Your task to perform on an android device: turn on bluetooth scan Image 0: 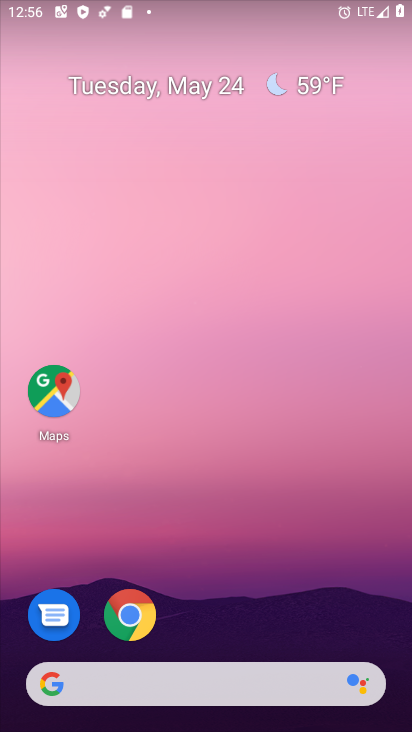
Step 0: drag from (235, 580) to (233, 56)
Your task to perform on an android device: turn on bluetooth scan Image 1: 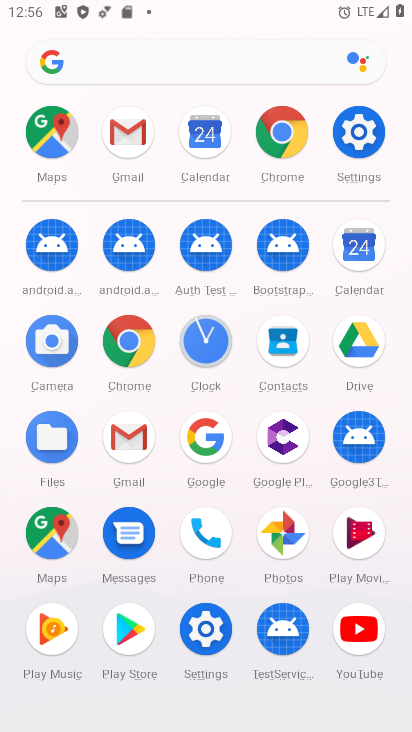
Step 1: drag from (4, 528) to (17, 170)
Your task to perform on an android device: turn on bluetooth scan Image 2: 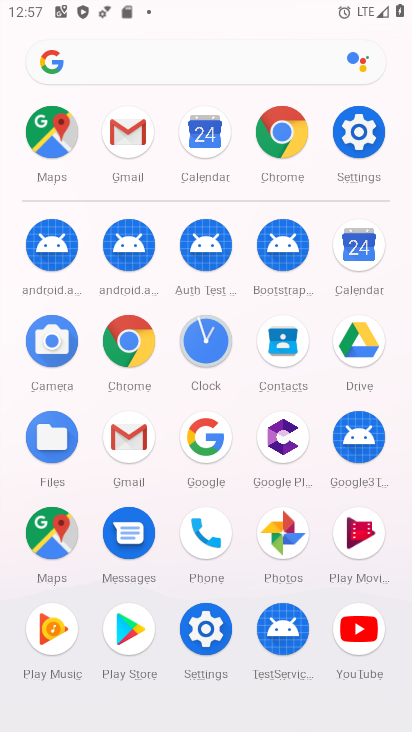
Step 2: click (201, 628)
Your task to perform on an android device: turn on bluetooth scan Image 3: 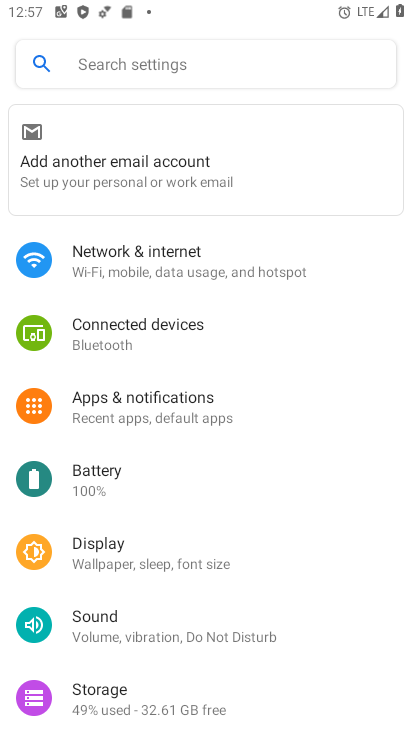
Step 3: drag from (221, 681) to (232, 230)
Your task to perform on an android device: turn on bluetooth scan Image 4: 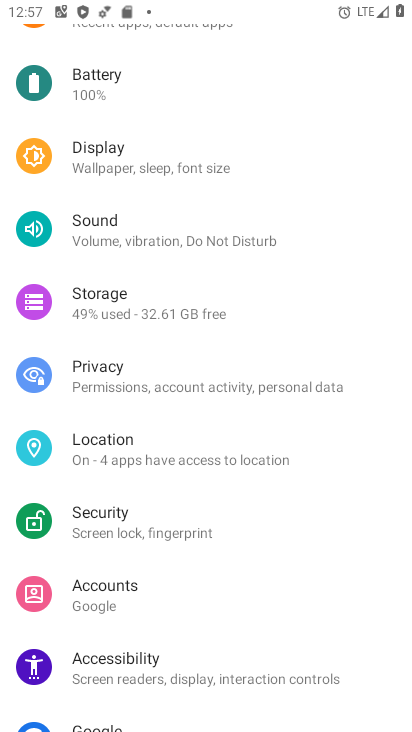
Step 4: click (131, 457)
Your task to perform on an android device: turn on bluetooth scan Image 5: 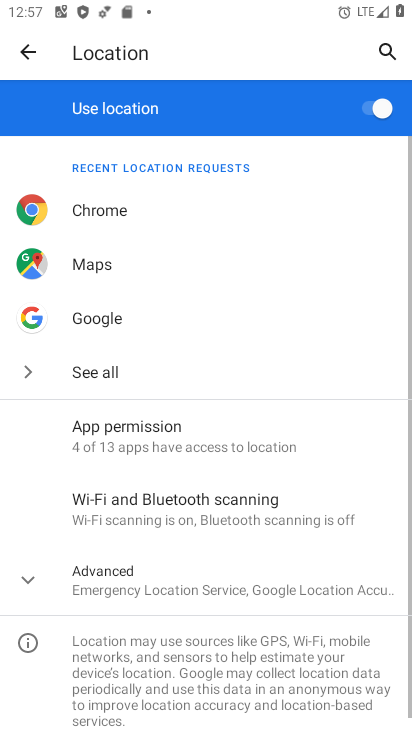
Step 5: click (37, 587)
Your task to perform on an android device: turn on bluetooth scan Image 6: 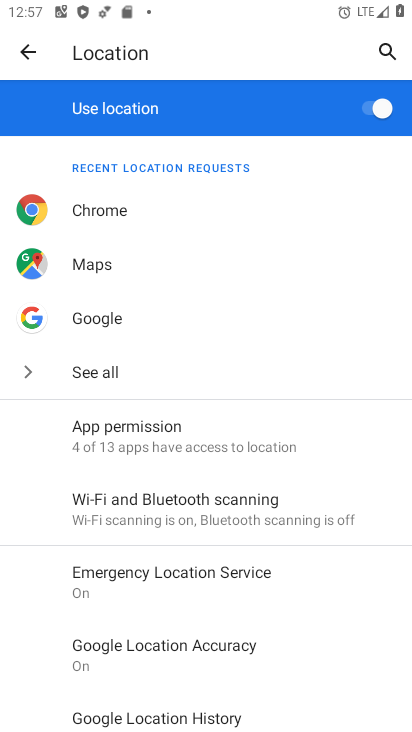
Step 6: click (218, 506)
Your task to perform on an android device: turn on bluetooth scan Image 7: 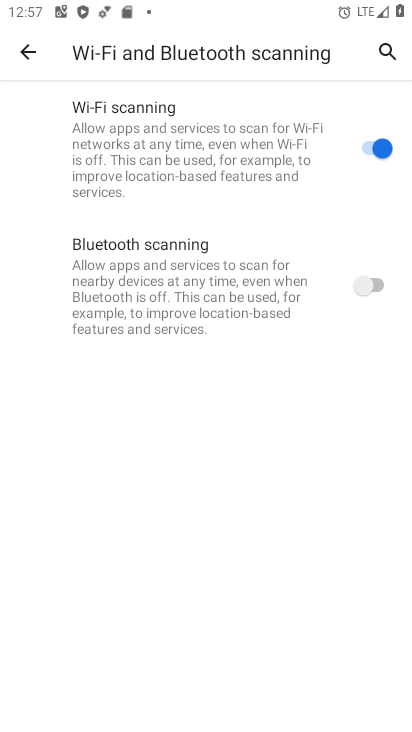
Step 7: click (374, 291)
Your task to perform on an android device: turn on bluetooth scan Image 8: 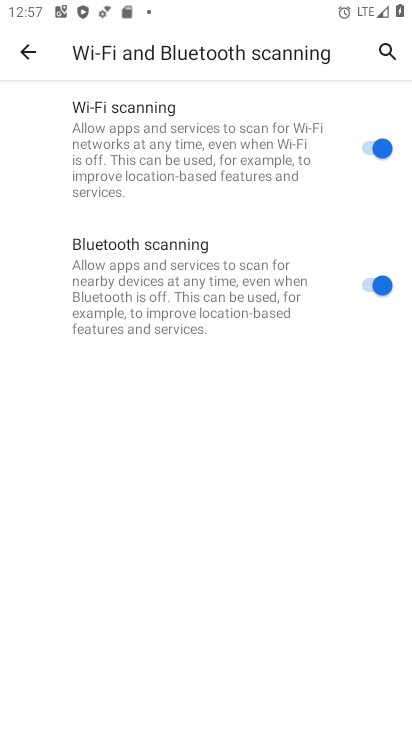
Step 8: task complete